Your task to perform on an android device: Open Google Chrome and click the shortcut for Amazon.com Image 0: 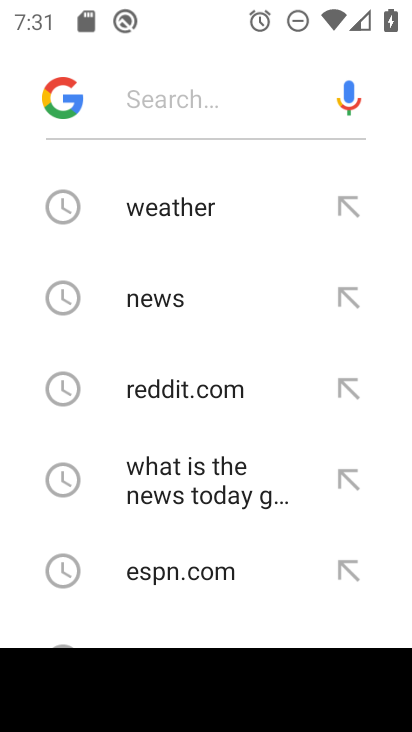
Step 0: press home button
Your task to perform on an android device: Open Google Chrome and click the shortcut for Amazon.com Image 1: 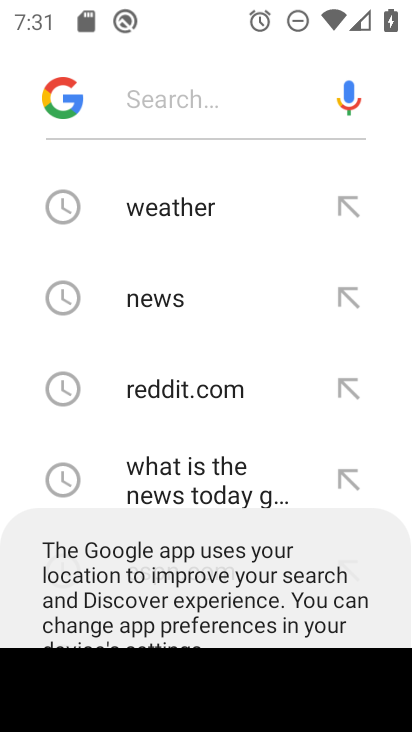
Step 1: press home button
Your task to perform on an android device: Open Google Chrome and click the shortcut for Amazon.com Image 2: 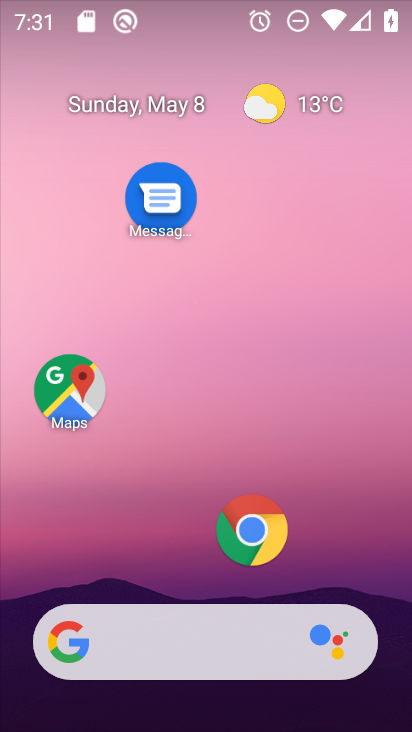
Step 2: drag from (197, 556) to (286, 72)
Your task to perform on an android device: Open Google Chrome and click the shortcut for Amazon.com Image 3: 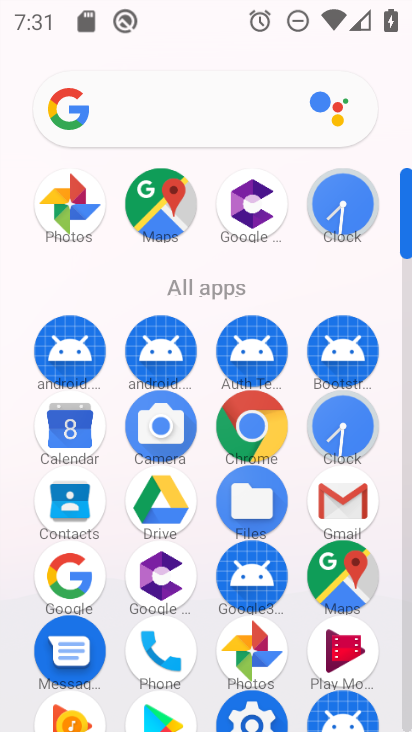
Step 3: click (252, 423)
Your task to perform on an android device: Open Google Chrome and click the shortcut for Amazon.com Image 4: 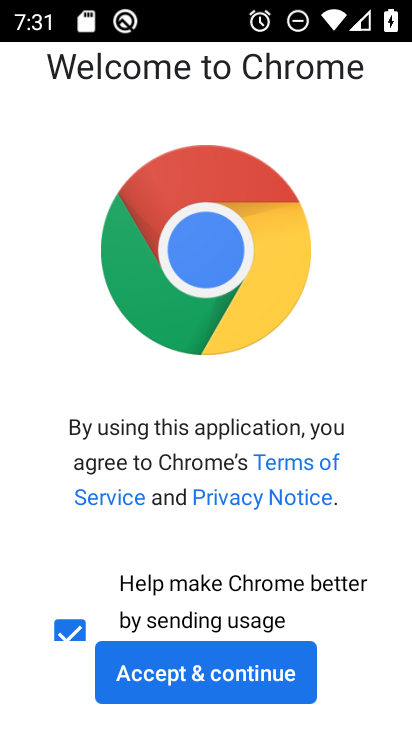
Step 4: click (216, 668)
Your task to perform on an android device: Open Google Chrome and click the shortcut for Amazon.com Image 5: 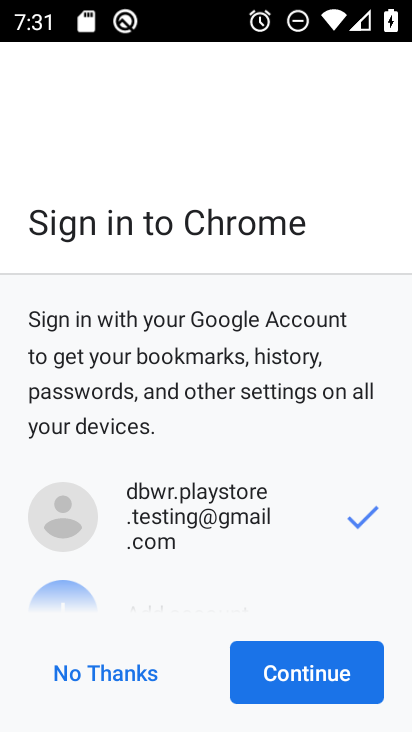
Step 5: click (312, 678)
Your task to perform on an android device: Open Google Chrome and click the shortcut for Amazon.com Image 6: 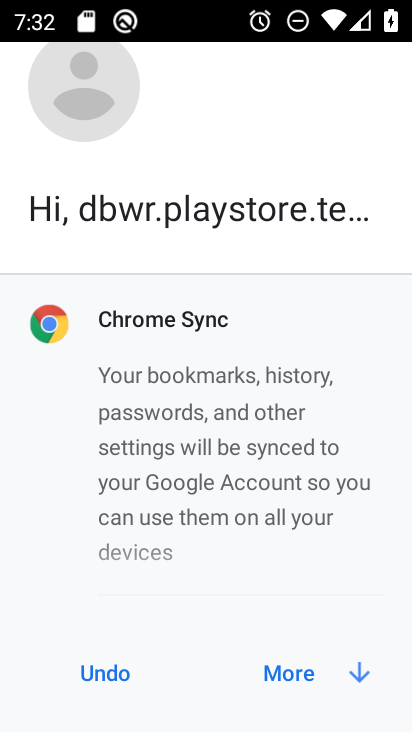
Step 6: click (312, 676)
Your task to perform on an android device: Open Google Chrome and click the shortcut for Amazon.com Image 7: 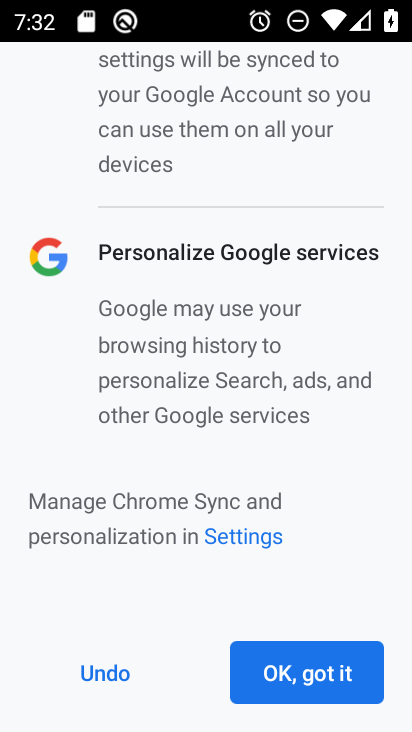
Step 7: click (312, 676)
Your task to perform on an android device: Open Google Chrome and click the shortcut for Amazon.com Image 8: 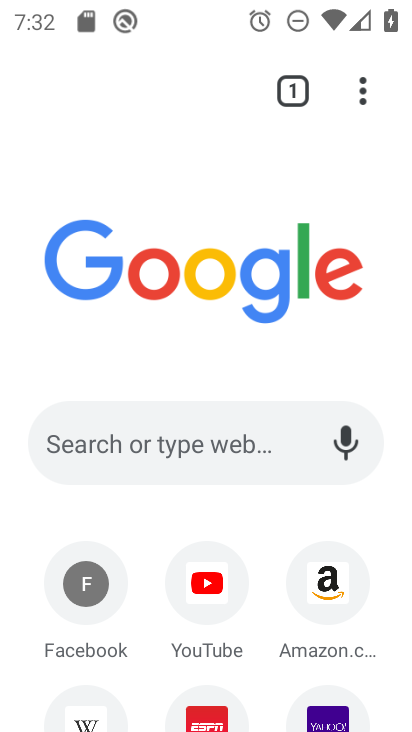
Step 8: click (318, 580)
Your task to perform on an android device: Open Google Chrome and click the shortcut for Amazon.com Image 9: 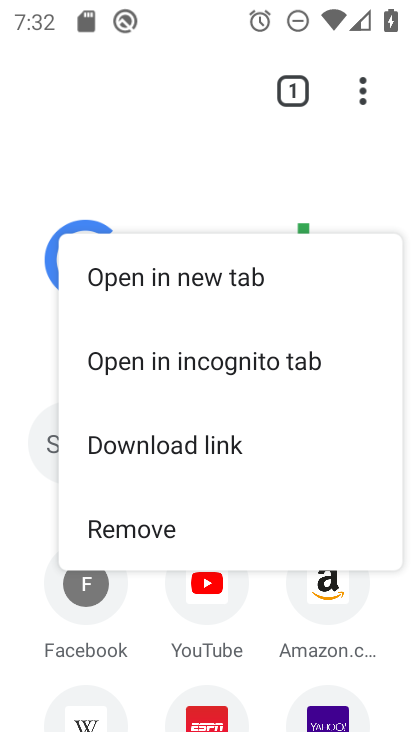
Step 9: click (312, 598)
Your task to perform on an android device: Open Google Chrome and click the shortcut for Amazon.com Image 10: 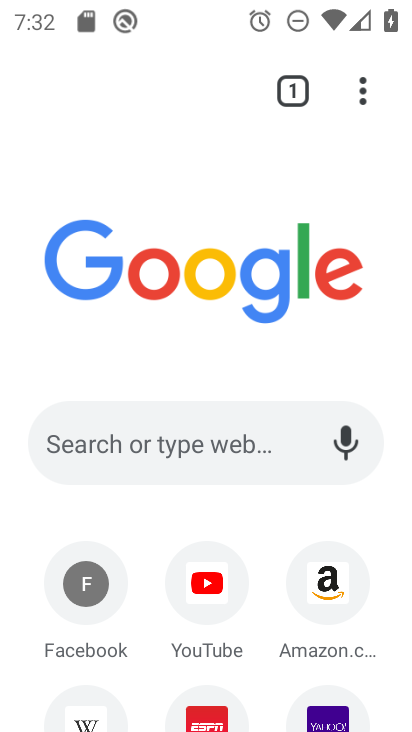
Step 10: click (312, 598)
Your task to perform on an android device: Open Google Chrome and click the shortcut for Amazon.com Image 11: 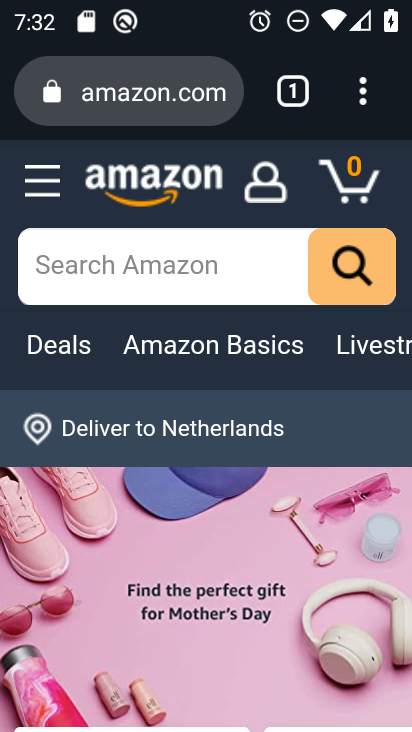
Step 11: task complete